Your task to perform on an android device: turn off improve location accuracy Image 0: 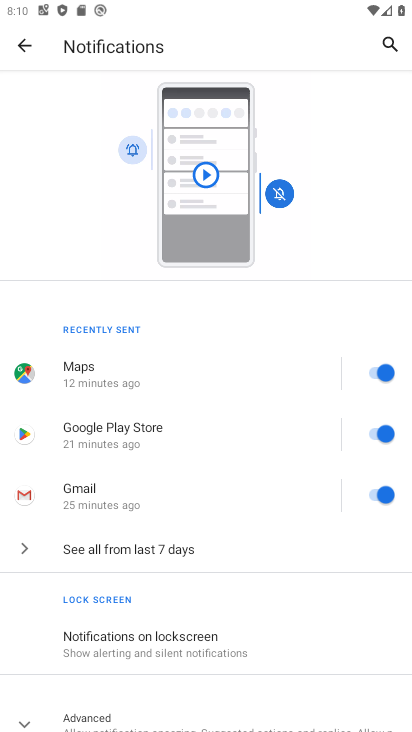
Step 0: press home button
Your task to perform on an android device: turn off improve location accuracy Image 1: 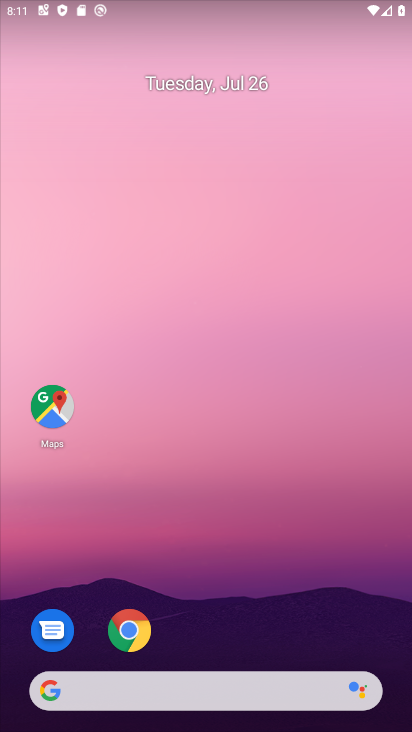
Step 1: drag from (226, 657) to (237, 0)
Your task to perform on an android device: turn off improve location accuracy Image 2: 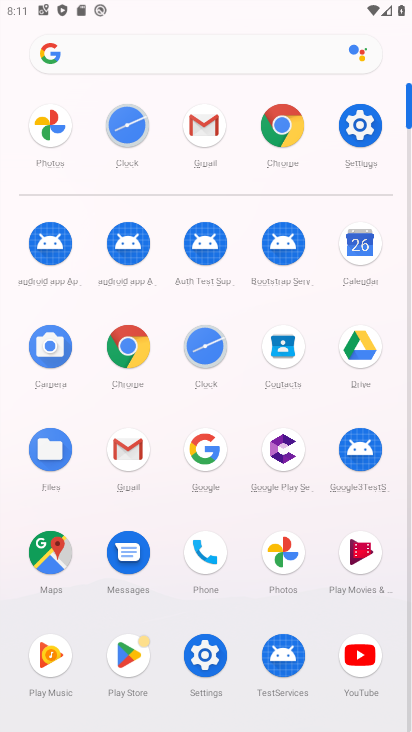
Step 2: click (350, 129)
Your task to perform on an android device: turn off improve location accuracy Image 3: 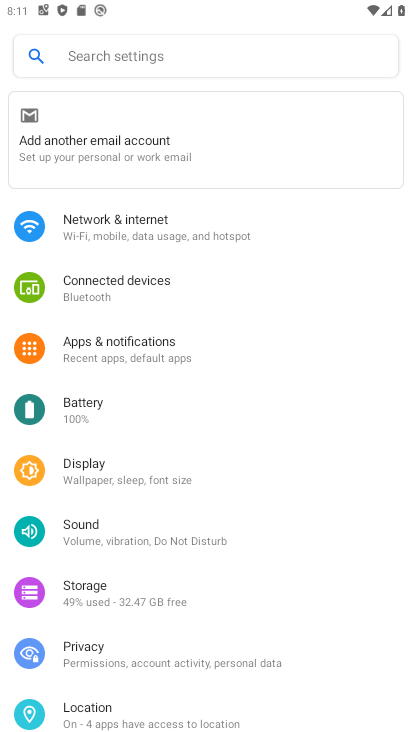
Step 3: click (162, 718)
Your task to perform on an android device: turn off improve location accuracy Image 4: 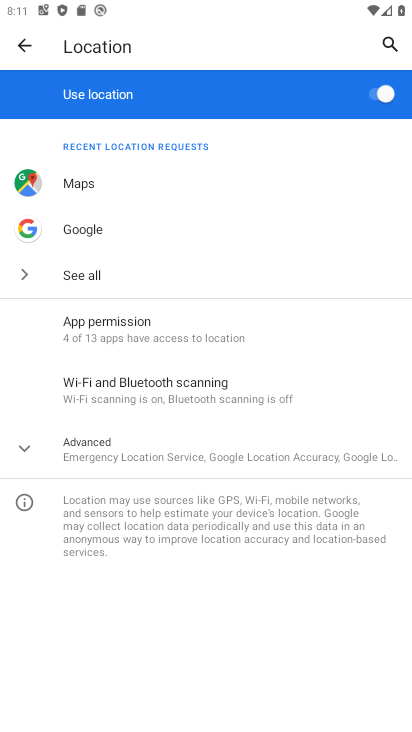
Step 4: click (95, 460)
Your task to perform on an android device: turn off improve location accuracy Image 5: 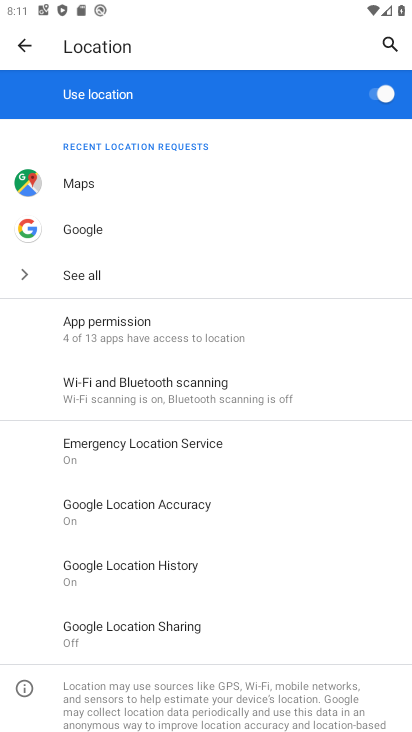
Step 5: click (175, 510)
Your task to perform on an android device: turn off improve location accuracy Image 6: 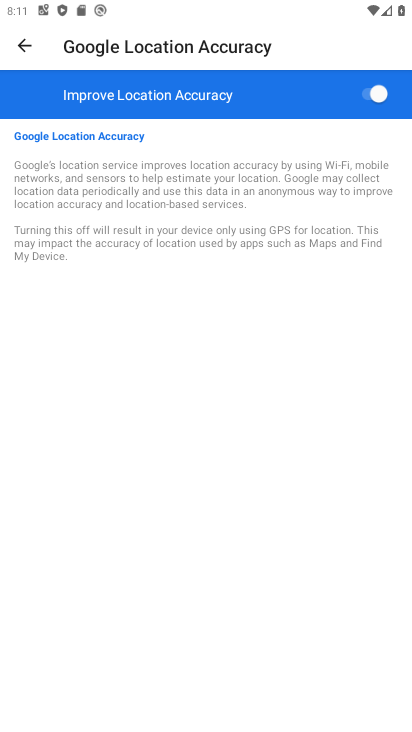
Step 6: click (365, 97)
Your task to perform on an android device: turn off improve location accuracy Image 7: 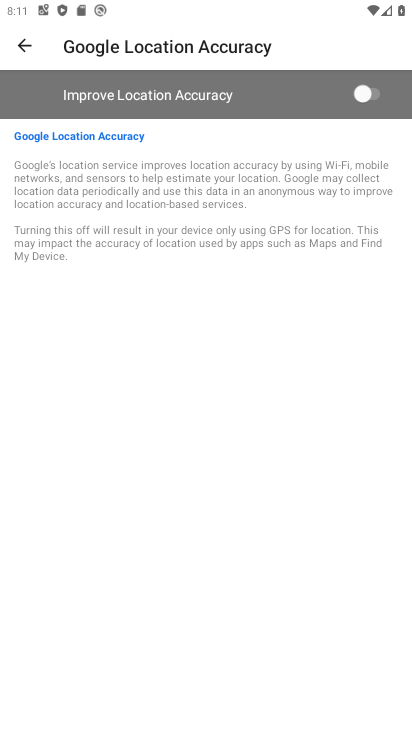
Step 7: task complete